Your task to perform on an android device: choose inbox layout in the gmail app Image 0: 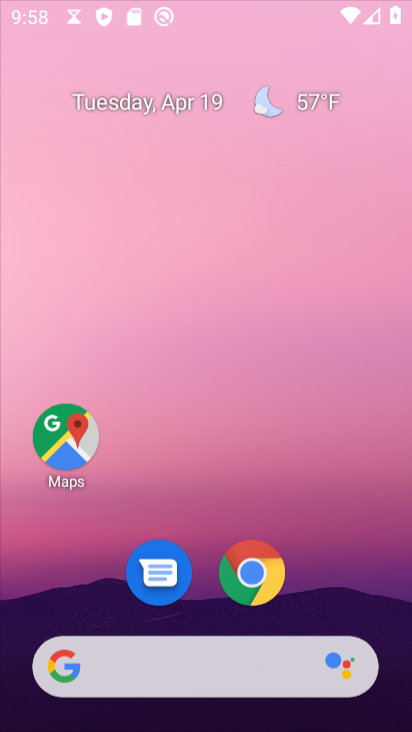
Step 0: drag from (336, 597) to (298, 215)
Your task to perform on an android device: choose inbox layout in the gmail app Image 1: 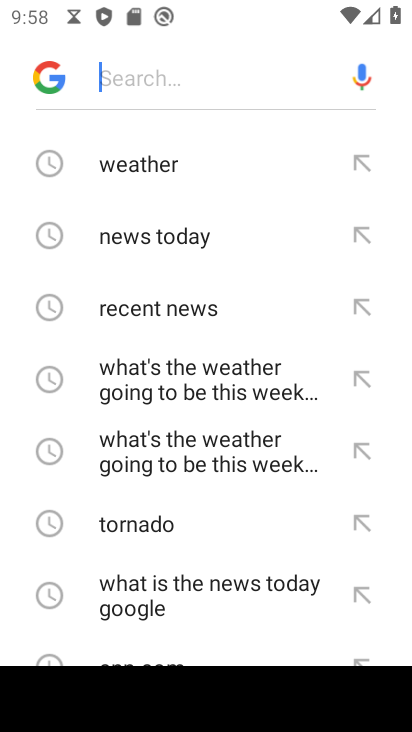
Step 1: press home button
Your task to perform on an android device: choose inbox layout in the gmail app Image 2: 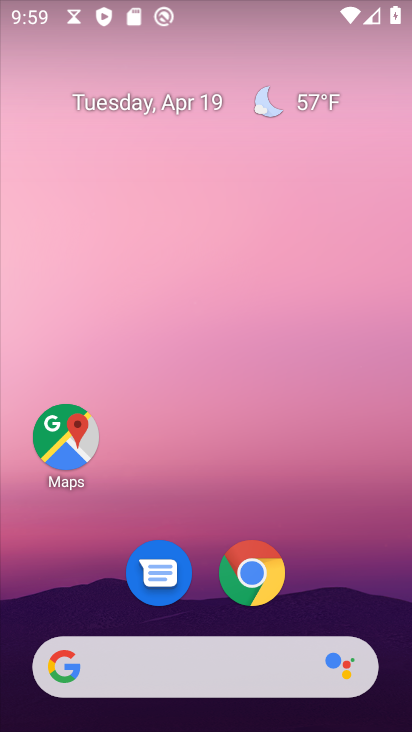
Step 2: drag from (284, 167) to (284, 110)
Your task to perform on an android device: choose inbox layout in the gmail app Image 3: 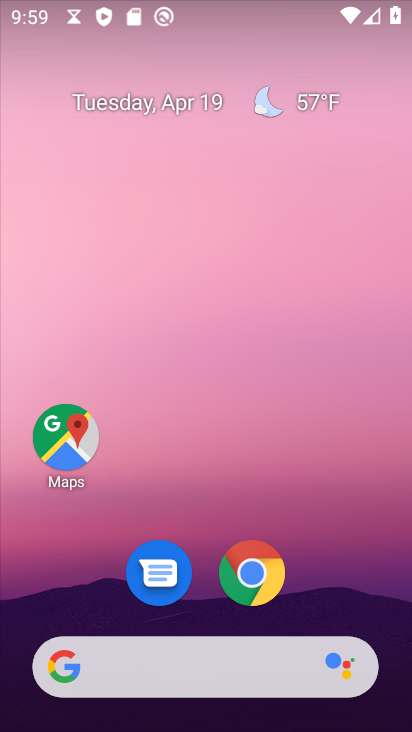
Step 3: drag from (352, 529) to (329, 48)
Your task to perform on an android device: choose inbox layout in the gmail app Image 4: 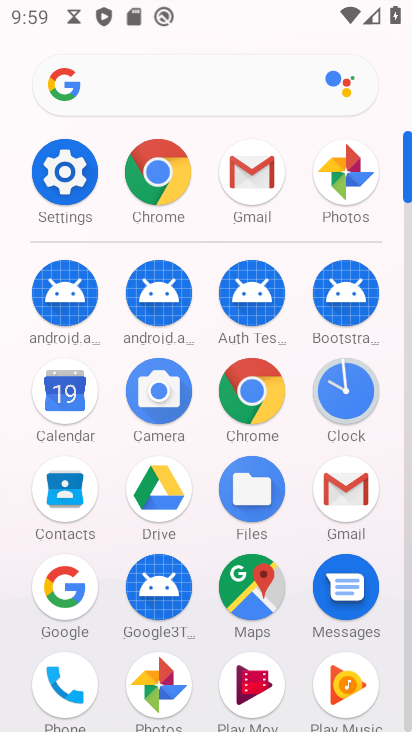
Step 4: click (251, 198)
Your task to perform on an android device: choose inbox layout in the gmail app Image 5: 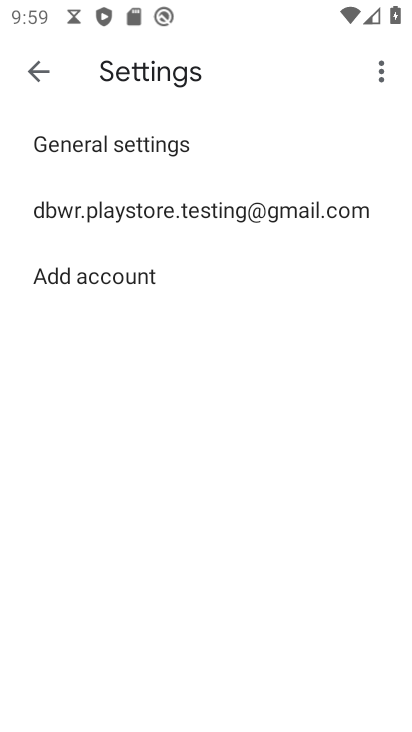
Step 5: click (160, 213)
Your task to perform on an android device: choose inbox layout in the gmail app Image 6: 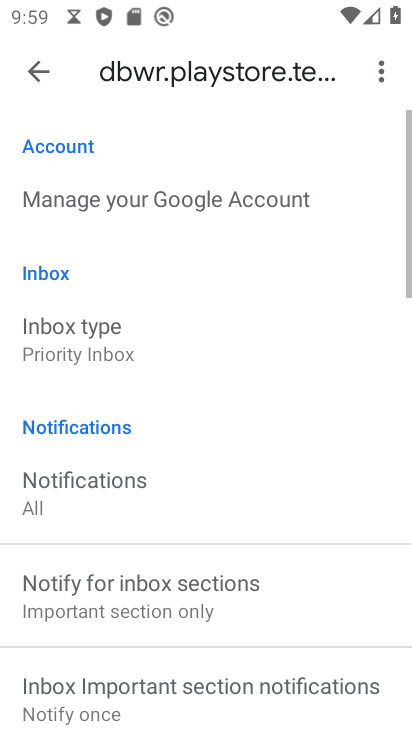
Step 6: click (77, 324)
Your task to perform on an android device: choose inbox layout in the gmail app Image 7: 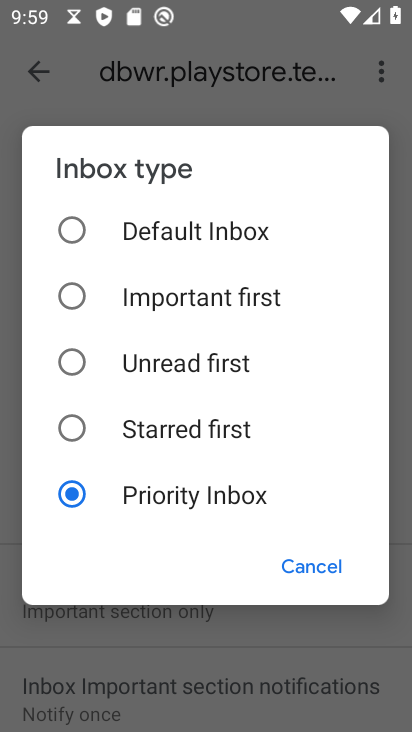
Step 7: click (79, 227)
Your task to perform on an android device: choose inbox layout in the gmail app Image 8: 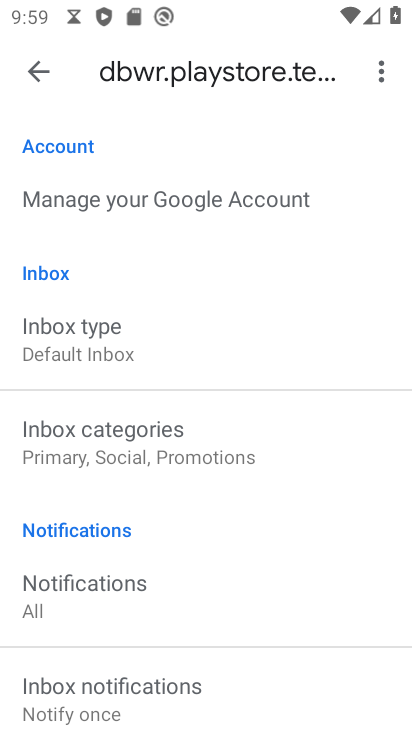
Step 8: task complete